Your task to perform on an android device: turn off airplane mode Image 0: 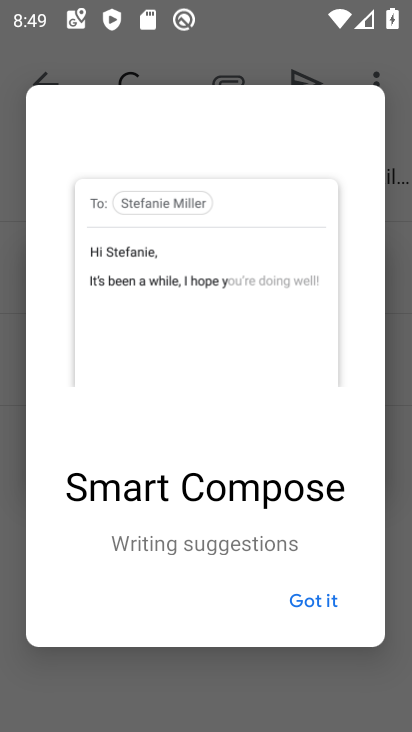
Step 0: press home button
Your task to perform on an android device: turn off airplane mode Image 1: 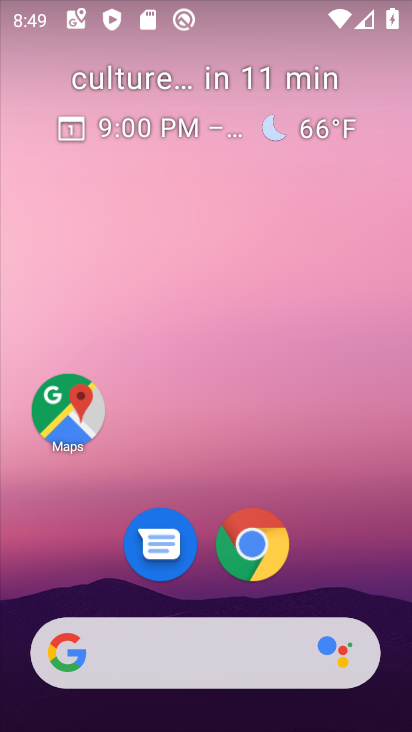
Step 1: drag from (200, 594) to (209, 128)
Your task to perform on an android device: turn off airplane mode Image 2: 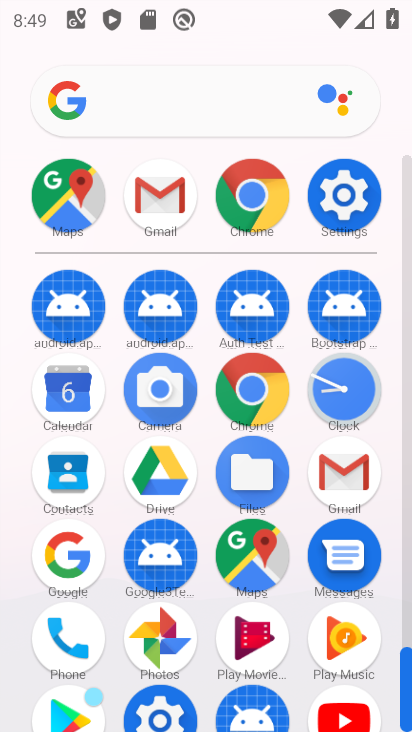
Step 2: click (346, 201)
Your task to perform on an android device: turn off airplane mode Image 3: 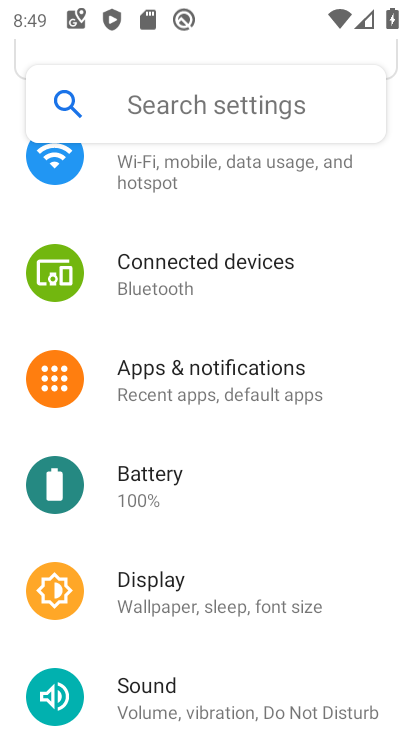
Step 3: click (203, 180)
Your task to perform on an android device: turn off airplane mode Image 4: 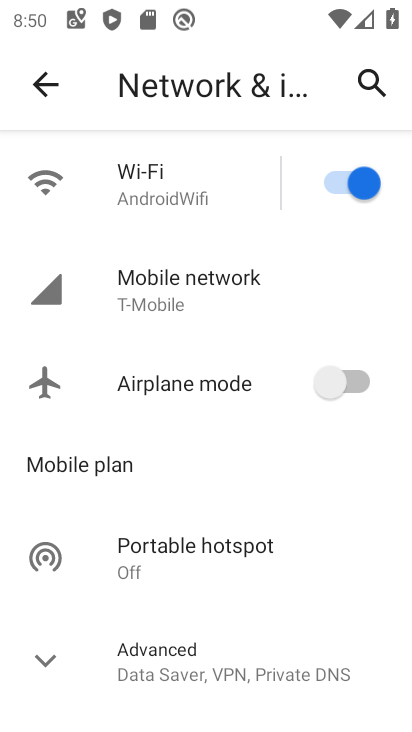
Step 4: task complete